Your task to perform on an android device: Open Chrome and go to settings Image 0: 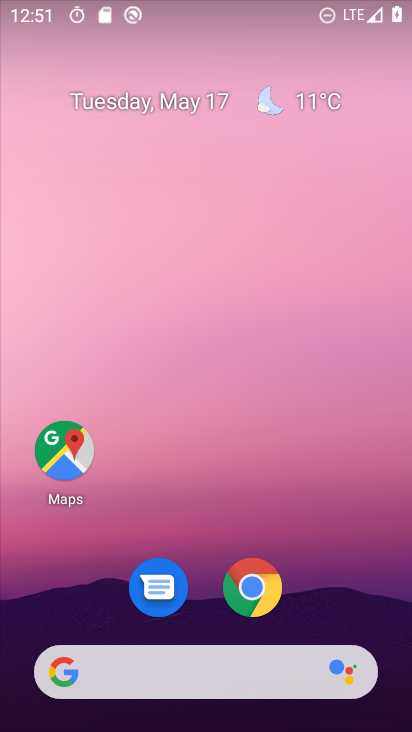
Step 0: click (406, 628)
Your task to perform on an android device: Open Chrome and go to settings Image 1: 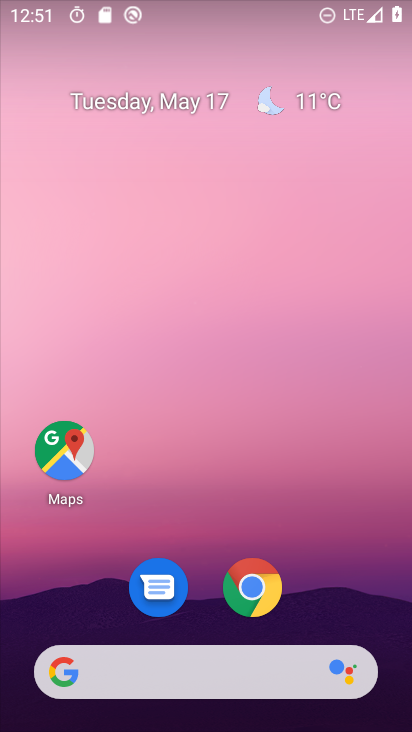
Step 1: drag from (202, 619) to (264, 272)
Your task to perform on an android device: Open Chrome and go to settings Image 2: 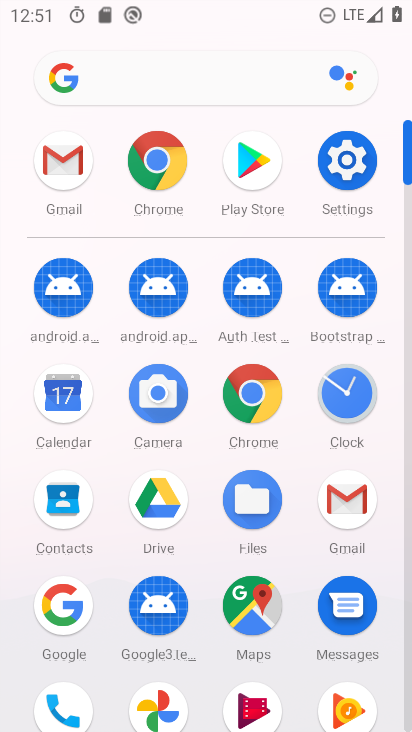
Step 2: click (151, 159)
Your task to perform on an android device: Open Chrome and go to settings Image 3: 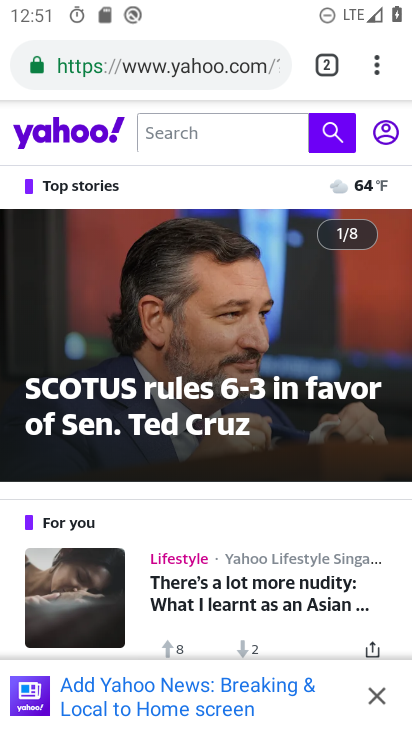
Step 3: click (375, 62)
Your task to perform on an android device: Open Chrome and go to settings Image 4: 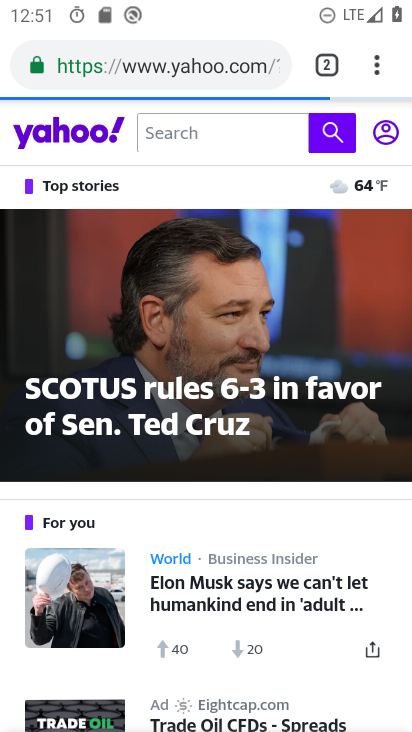
Step 4: click (377, 59)
Your task to perform on an android device: Open Chrome and go to settings Image 5: 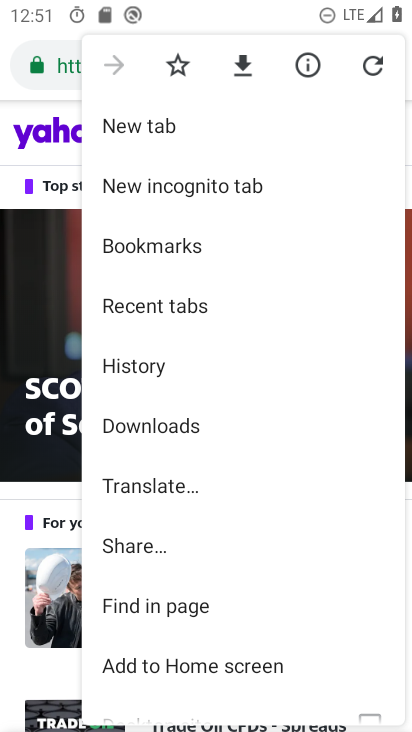
Step 5: drag from (196, 627) to (194, 281)
Your task to perform on an android device: Open Chrome and go to settings Image 6: 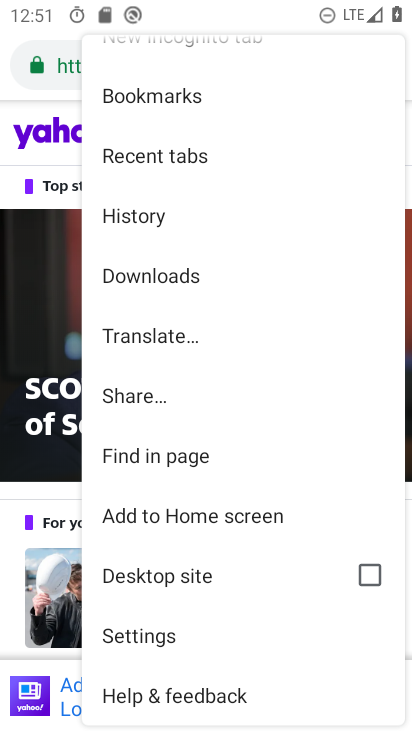
Step 6: click (192, 642)
Your task to perform on an android device: Open Chrome and go to settings Image 7: 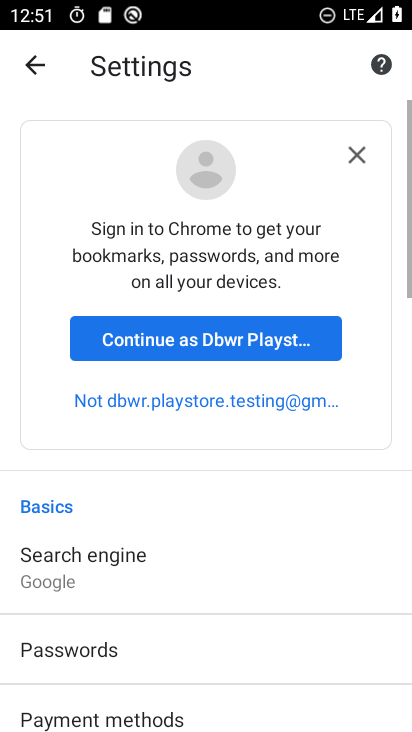
Step 7: task complete